Your task to perform on an android device: Open calendar and show me the third week of next month Image 0: 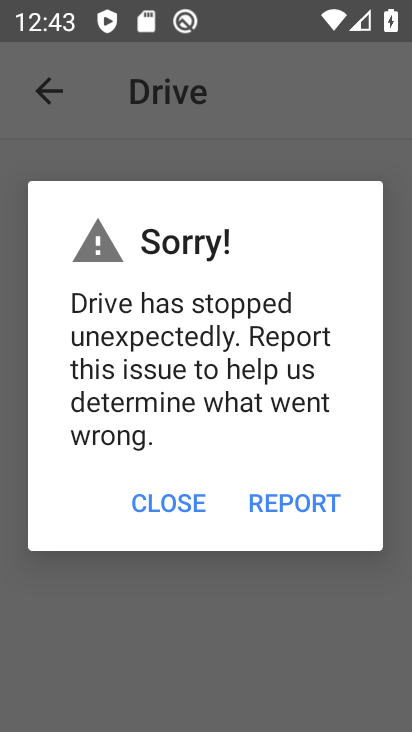
Step 0: press home button
Your task to perform on an android device: Open calendar and show me the third week of next month Image 1: 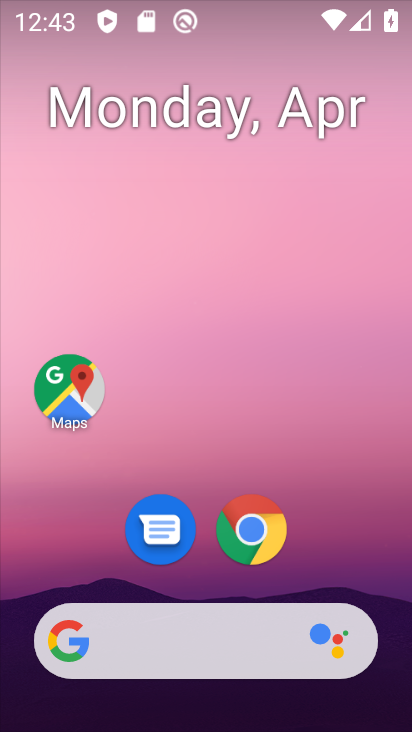
Step 1: drag from (239, 594) to (214, 228)
Your task to perform on an android device: Open calendar and show me the third week of next month Image 2: 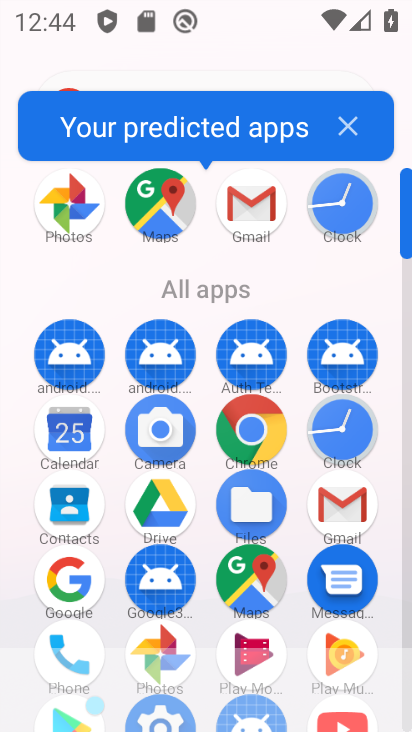
Step 2: click (61, 444)
Your task to perform on an android device: Open calendar and show me the third week of next month Image 3: 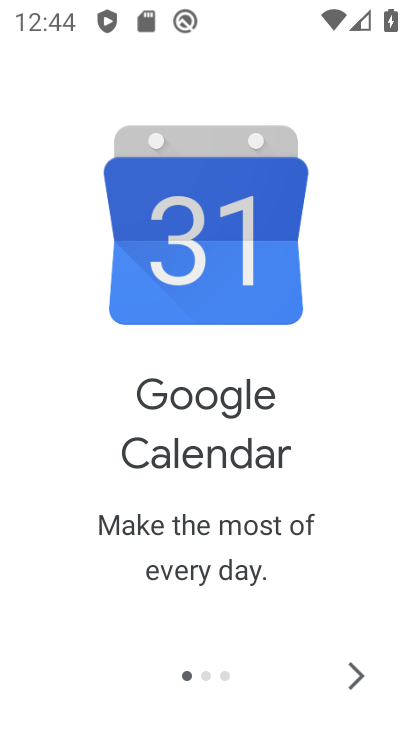
Step 3: click (350, 680)
Your task to perform on an android device: Open calendar and show me the third week of next month Image 4: 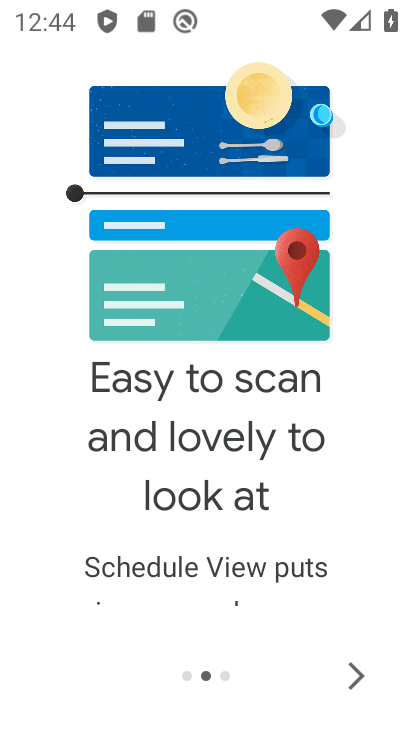
Step 4: click (356, 675)
Your task to perform on an android device: Open calendar and show me the third week of next month Image 5: 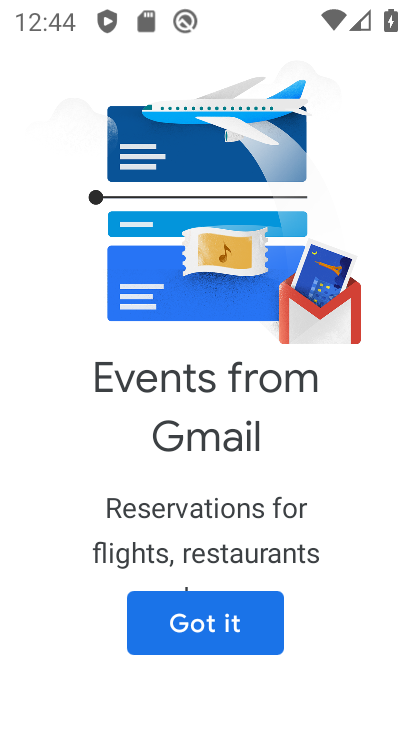
Step 5: click (247, 636)
Your task to perform on an android device: Open calendar and show me the third week of next month Image 6: 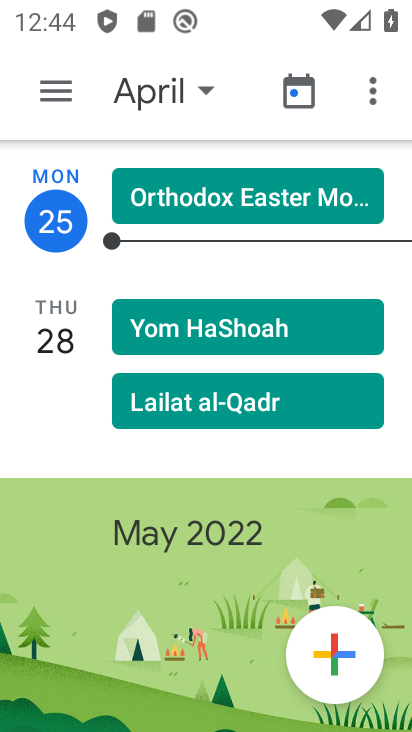
Step 6: click (173, 100)
Your task to perform on an android device: Open calendar and show me the third week of next month Image 7: 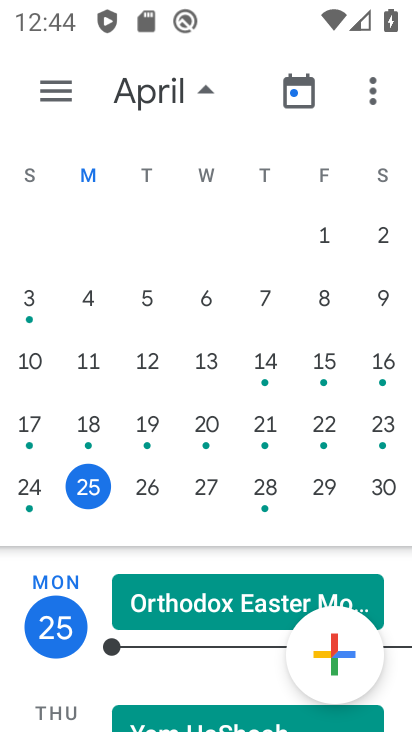
Step 7: drag from (377, 396) to (51, 386)
Your task to perform on an android device: Open calendar and show me the third week of next month Image 8: 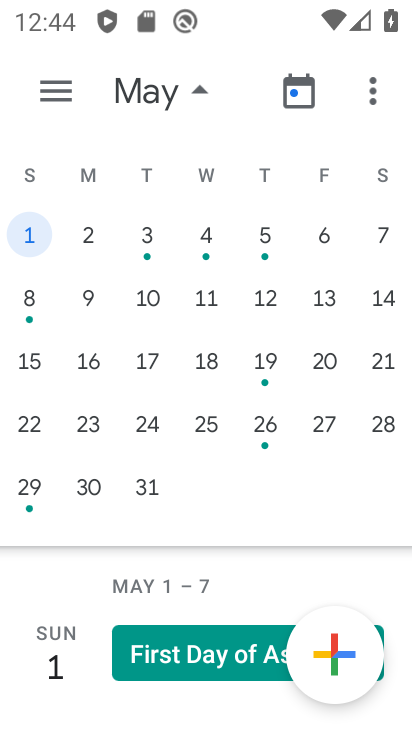
Step 8: click (209, 361)
Your task to perform on an android device: Open calendar and show me the third week of next month Image 9: 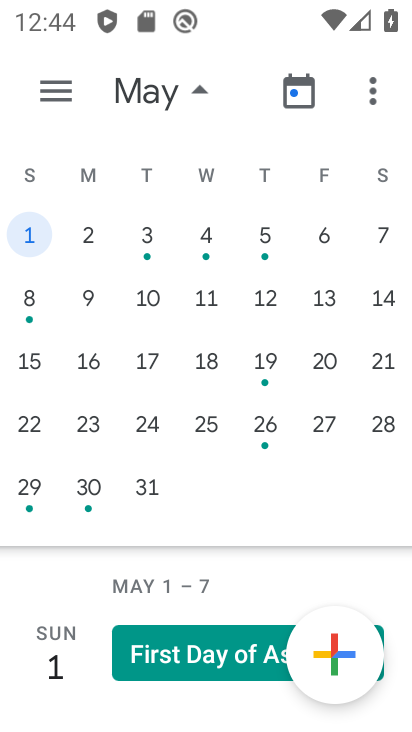
Step 9: click (43, 348)
Your task to perform on an android device: Open calendar and show me the third week of next month Image 10: 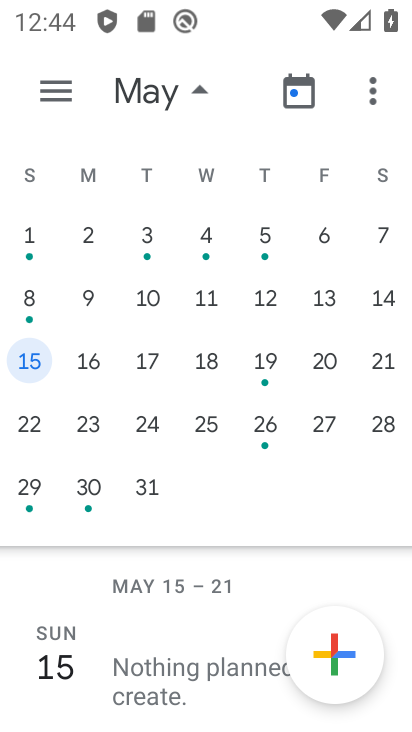
Step 10: click (41, 90)
Your task to perform on an android device: Open calendar and show me the third week of next month Image 11: 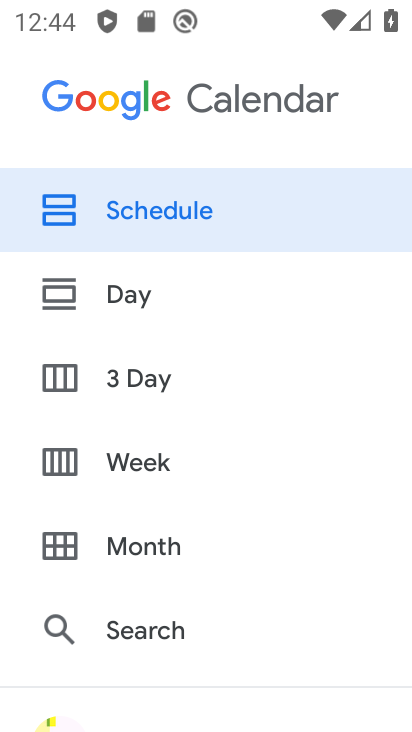
Step 11: click (70, 455)
Your task to perform on an android device: Open calendar and show me the third week of next month Image 12: 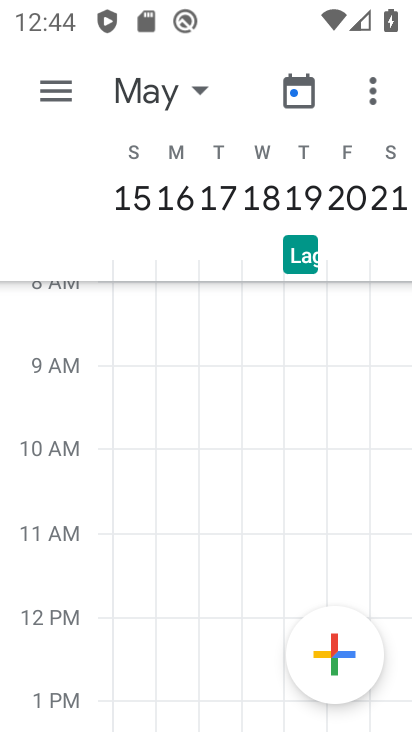
Step 12: task complete